Your task to perform on an android device: change the clock display to digital Image 0: 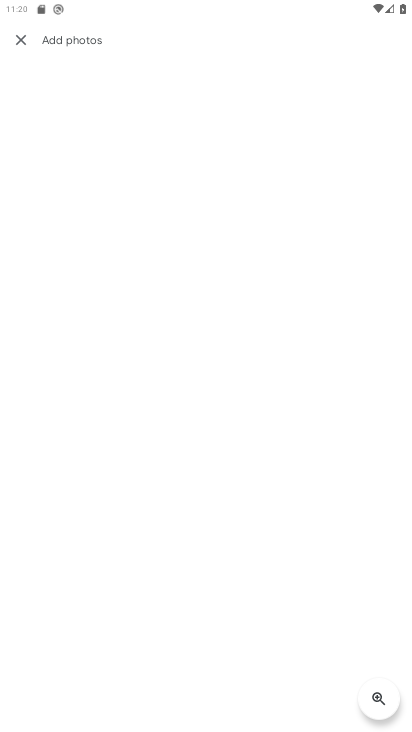
Step 0: press home button
Your task to perform on an android device: change the clock display to digital Image 1: 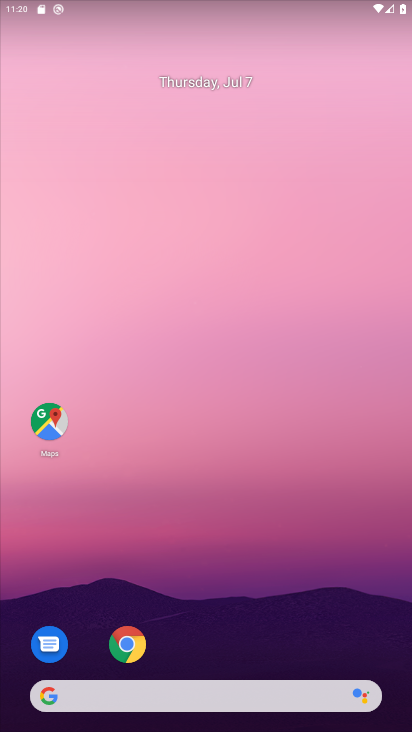
Step 1: drag from (86, 422) to (141, 189)
Your task to perform on an android device: change the clock display to digital Image 2: 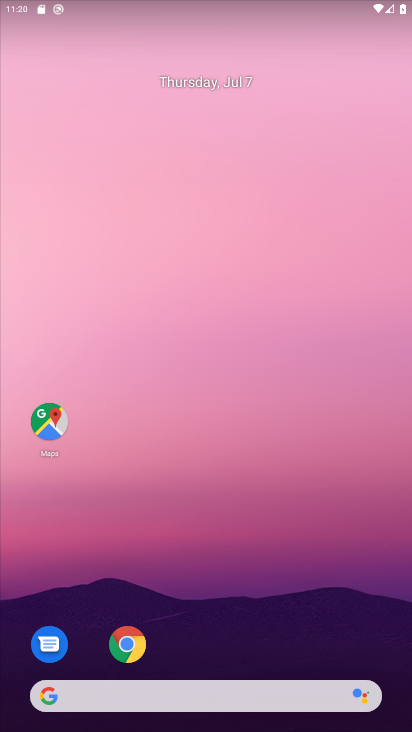
Step 2: drag from (129, 531) to (371, 1)
Your task to perform on an android device: change the clock display to digital Image 3: 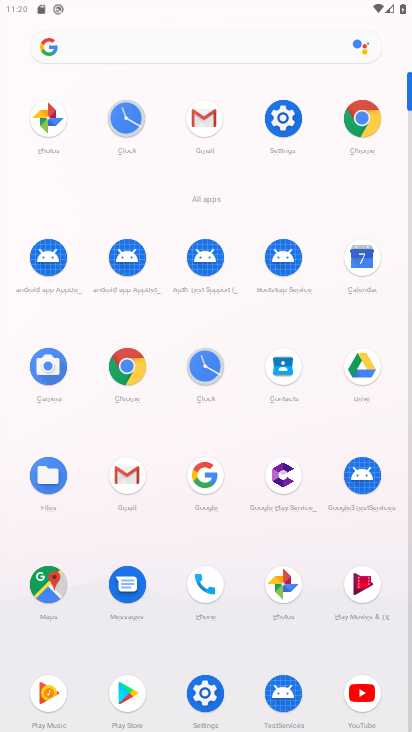
Step 3: click (202, 381)
Your task to perform on an android device: change the clock display to digital Image 4: 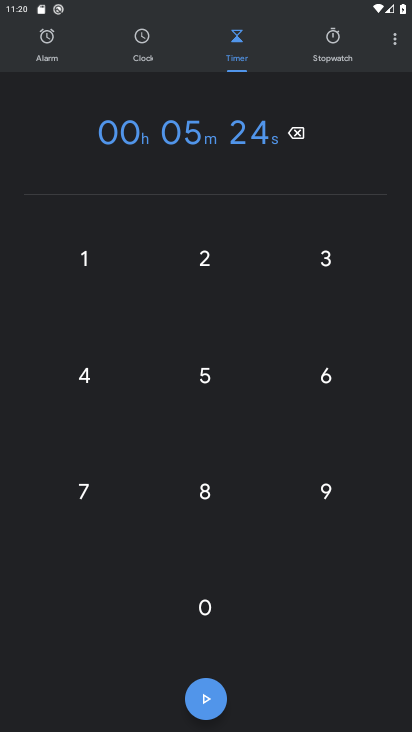
Step 4: click (153, 45)
Your task to perform on an android device: change the clock display to digital Image 5: 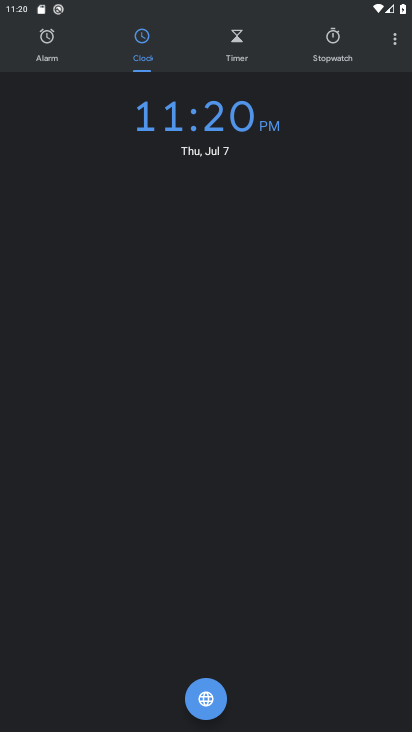
Step 5: click (396, 42)
Your task to perform on an android device: change the clock display to digital Image 6: 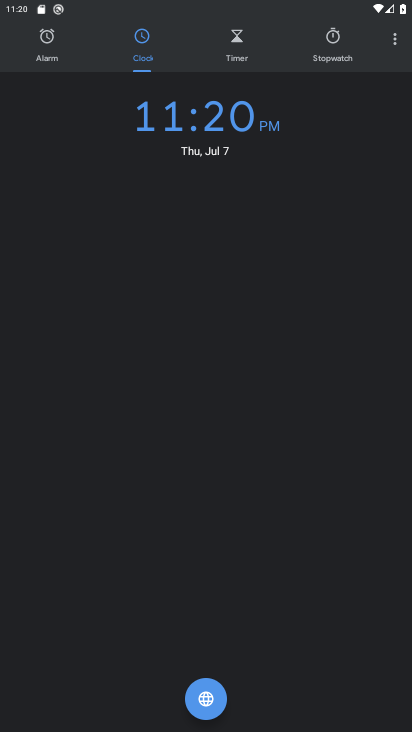
Step 6: click (399, 41)
Your task to perform on an android device: change the clock display to digital Image 7: 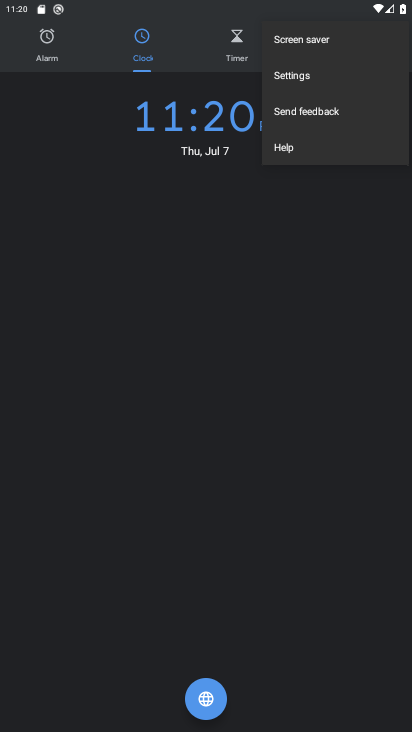
Step 7: click (304, 78)
Your task to perform on an android device: change the clock display to digital Image 8: 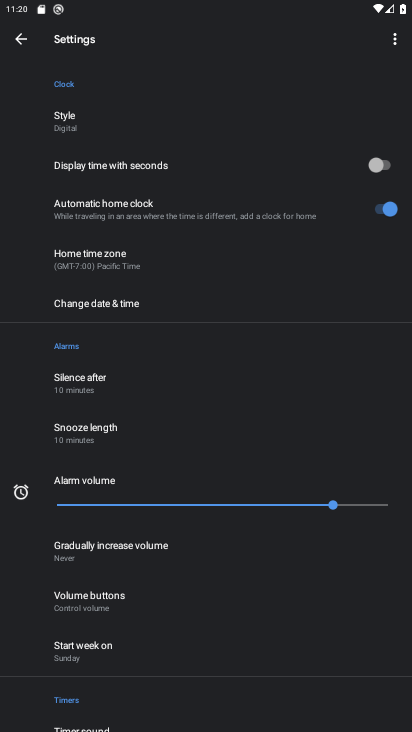
Step 8: click (115, 130)
Your task to perform on an android device: change the clock display to digital Image 9: 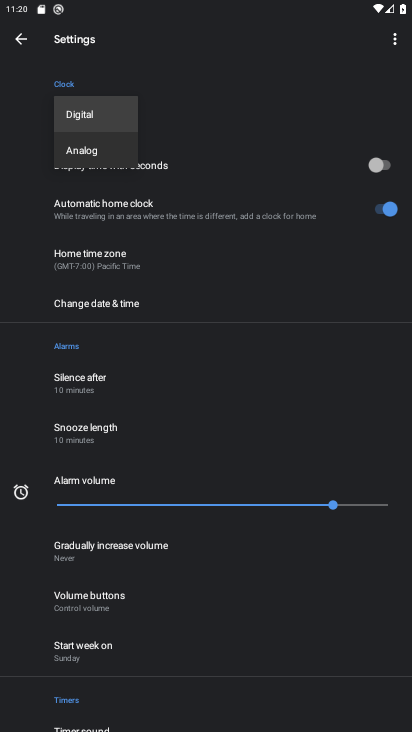
Step 9: click (113, 117)
Your task to perform on an android device: change the clock display to digital Image 10: 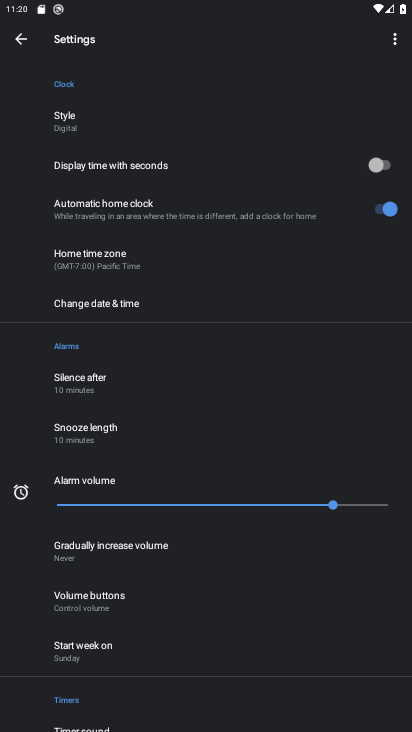
Step 10: task complete